Your task to perform on an android device: turn on airplane mode Image 0: 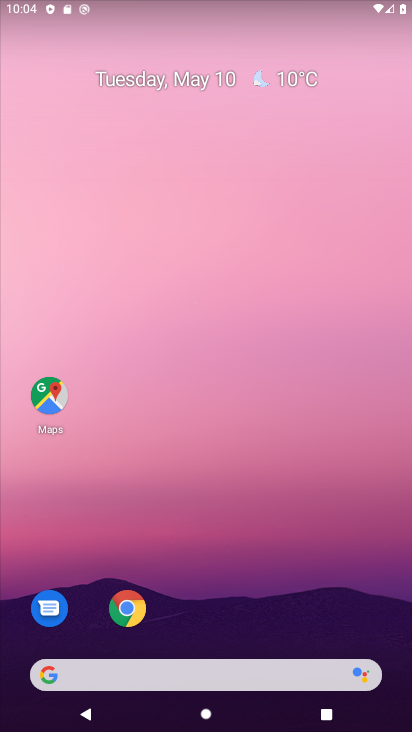
Step 0: drag from (275, 635) to (279, 17)
Your task to perform on an android device: turn on airplane mode Image 1: 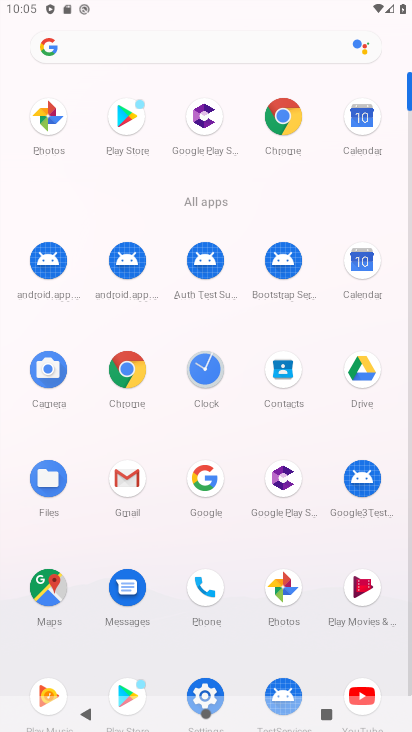
Step 1: click (192, 676)
Your task to perform on an android device: turn on airplane mode Image 2: 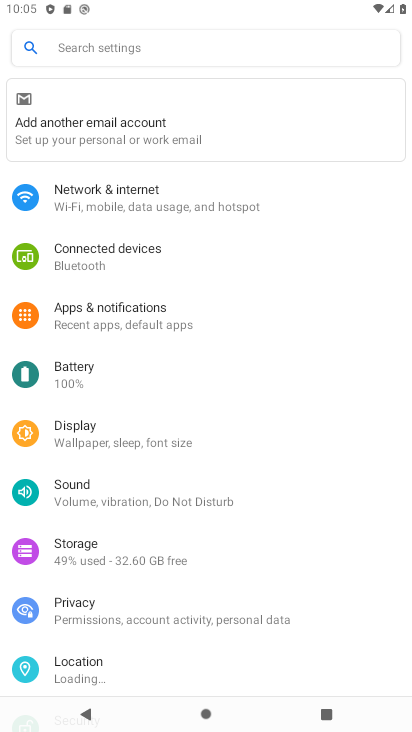
Step 2: click (128, 201)
Your task to perform on an android device: turn on airplane mode Image 3: 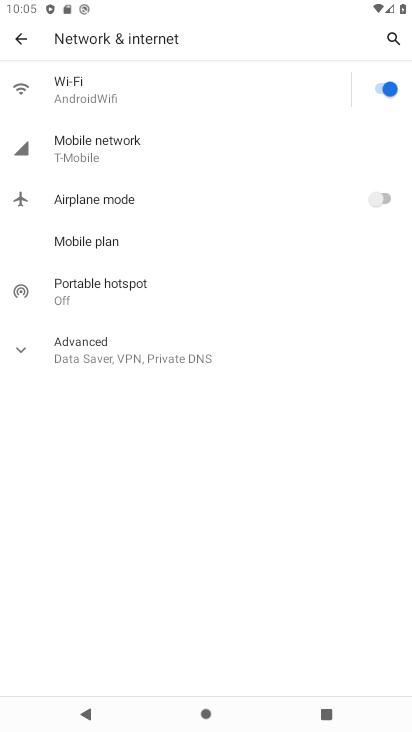
Step 3: click (127, 208)
Your task to perform on an android device: turn on airplane mode Image 4: 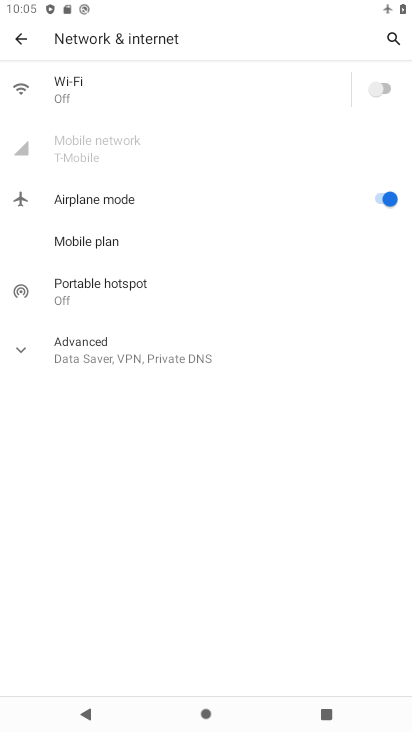
Step 4: task complete